Your task to perform on an android device: add a contact Image 0: 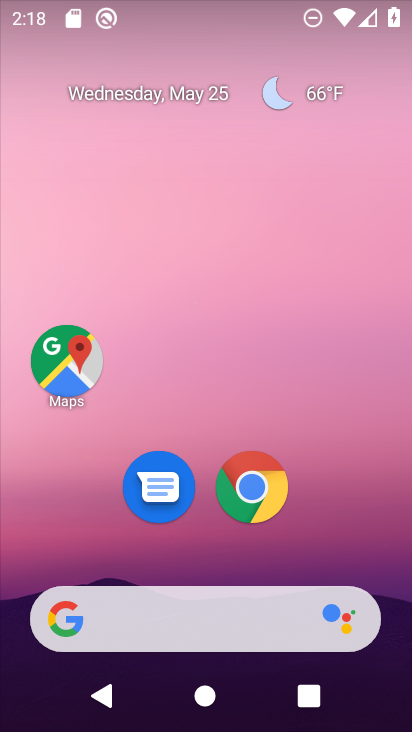
Step 0: drag from (216, 552) to (271, 119)
Your task to perform on an android device: add a contact Image 1: 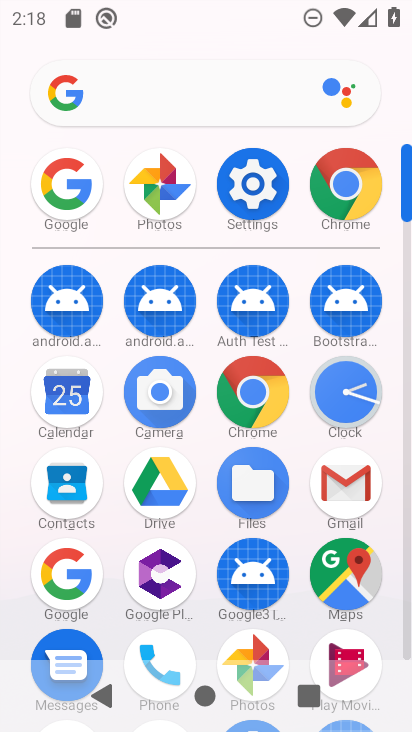
Step 1: press home button
Your task to perform on an android device: add a contact Image 2: 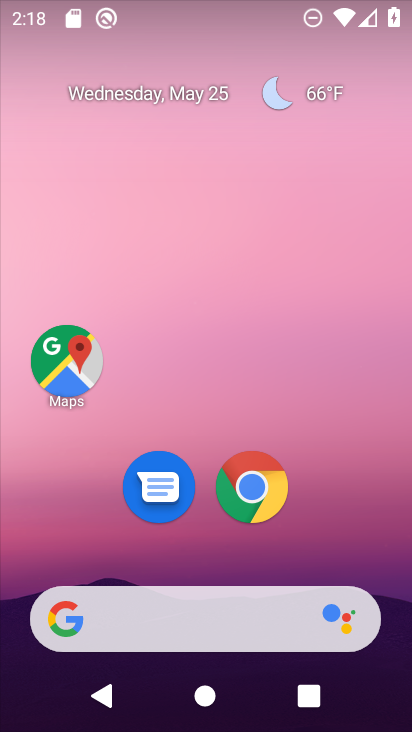
Step 2: drag from (169, 550) to (183, 241)
Your task to perform on an android device: add a contact Image 3: 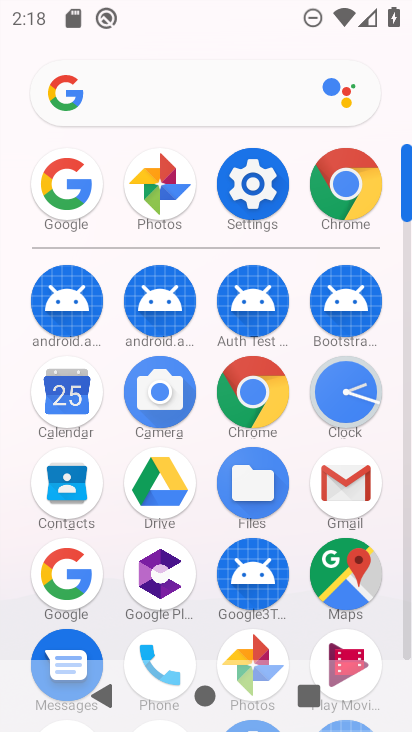
Step 3: click (76, 493)
Your task to perform on an android device: add a contact Image 4: 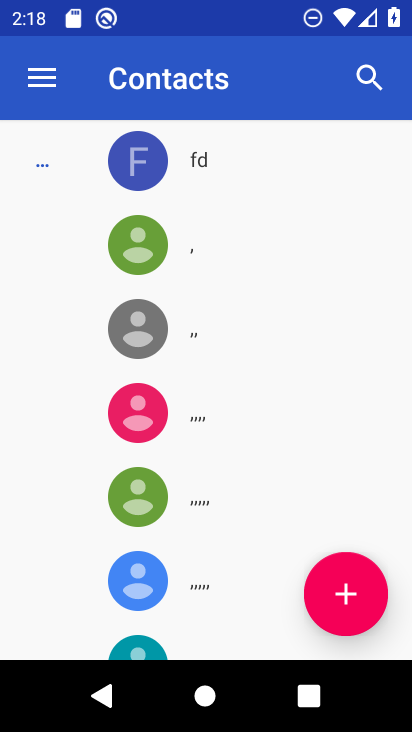
Step 4: click (344, 600)
Your task to perform on an android device: add a contact Image 5: 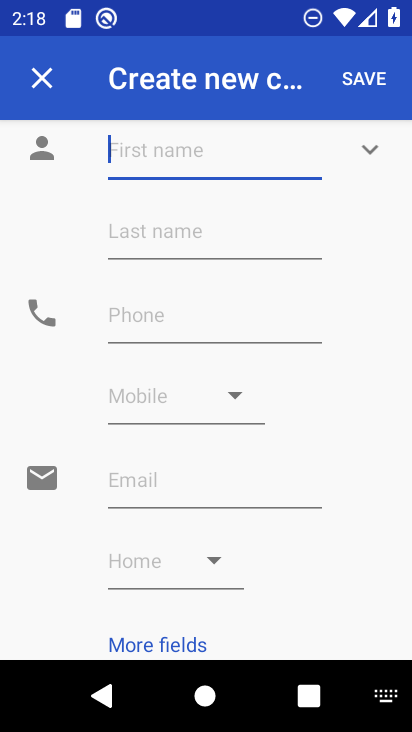
Step 5: type "Namrata"
Your task to perform on an android device: add a contact Image 6: 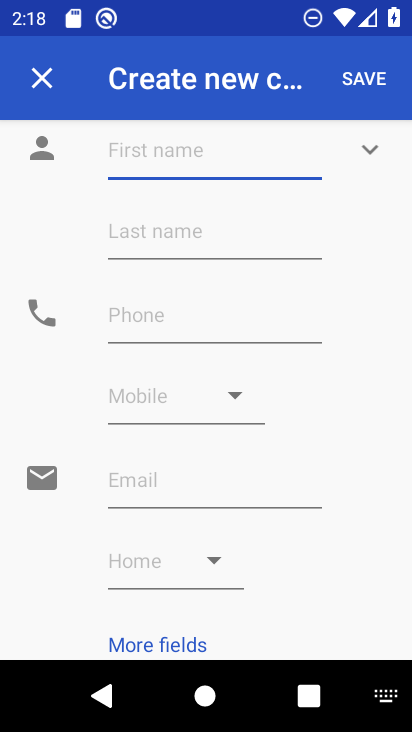
Step 6: click (266, 246)
Your task to perform on an android device: add a contact Image 7: 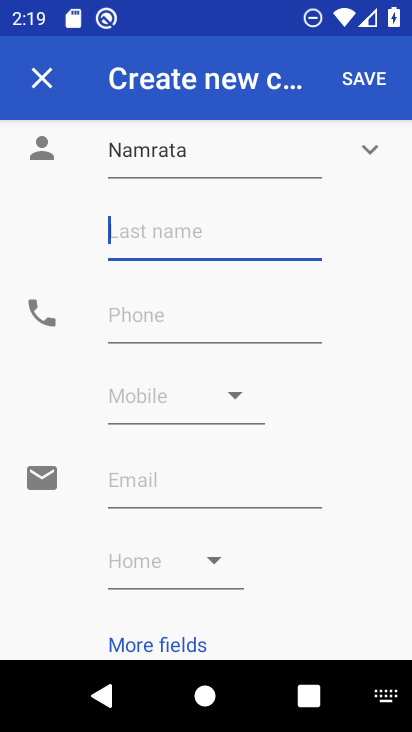
Step 7: type "Saxena"
Your task to perform on an android device: add a contact Image 8: 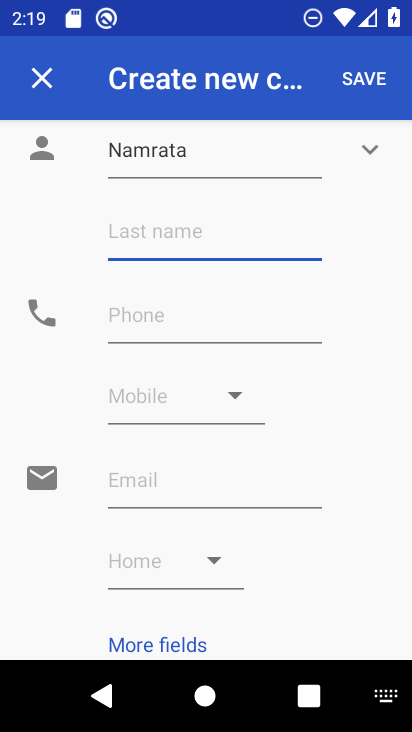
Step 8: click (183, 325)
Your task to perform on an android device: add a contact Image 9: 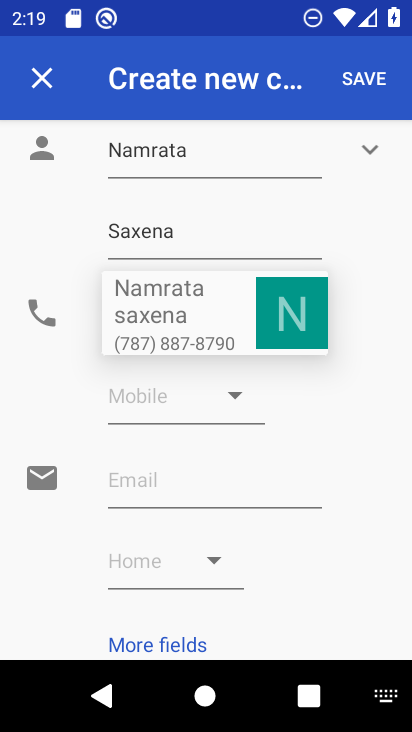
Step 9: click (259, 231)
Your task to perform on an android device: add a contact Image 10: 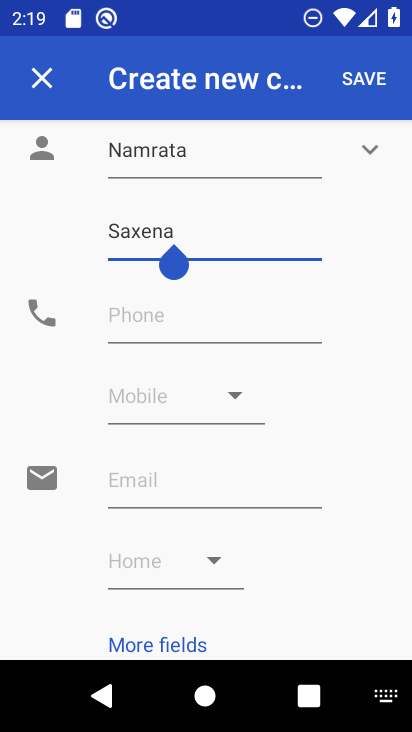
Step 10: type "2"
Your task to perform on an android device: add a contact Image 11: 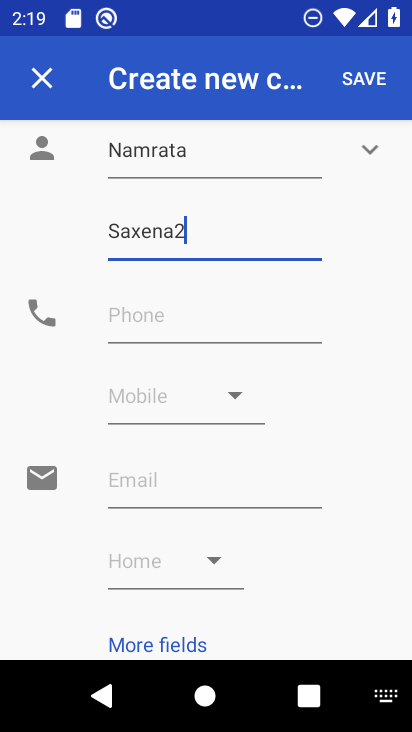
Step 11: click (261, 320)
Your task to perform on an android device: add a contact Image 12: 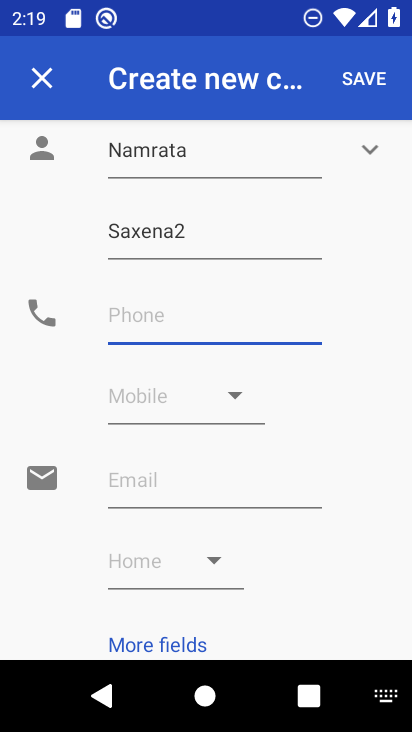
Step 12: type "0809090909"
Your task to perform on an android device: add a contact Image 13: 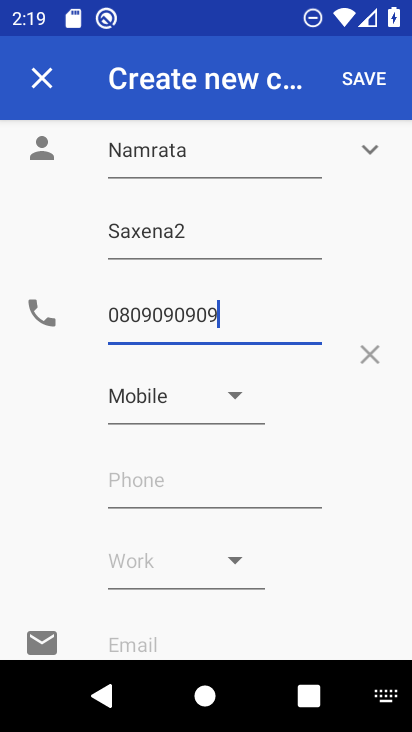
Step 13: click (375, 74)
Your task to perform on an android device: add a contact Image 14: 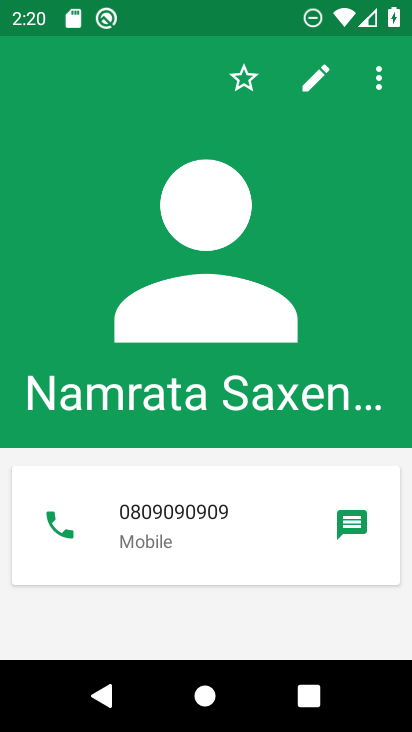
Step 14: task complete